Your task to perform on an android device: open sync settings in chrome Image 0: 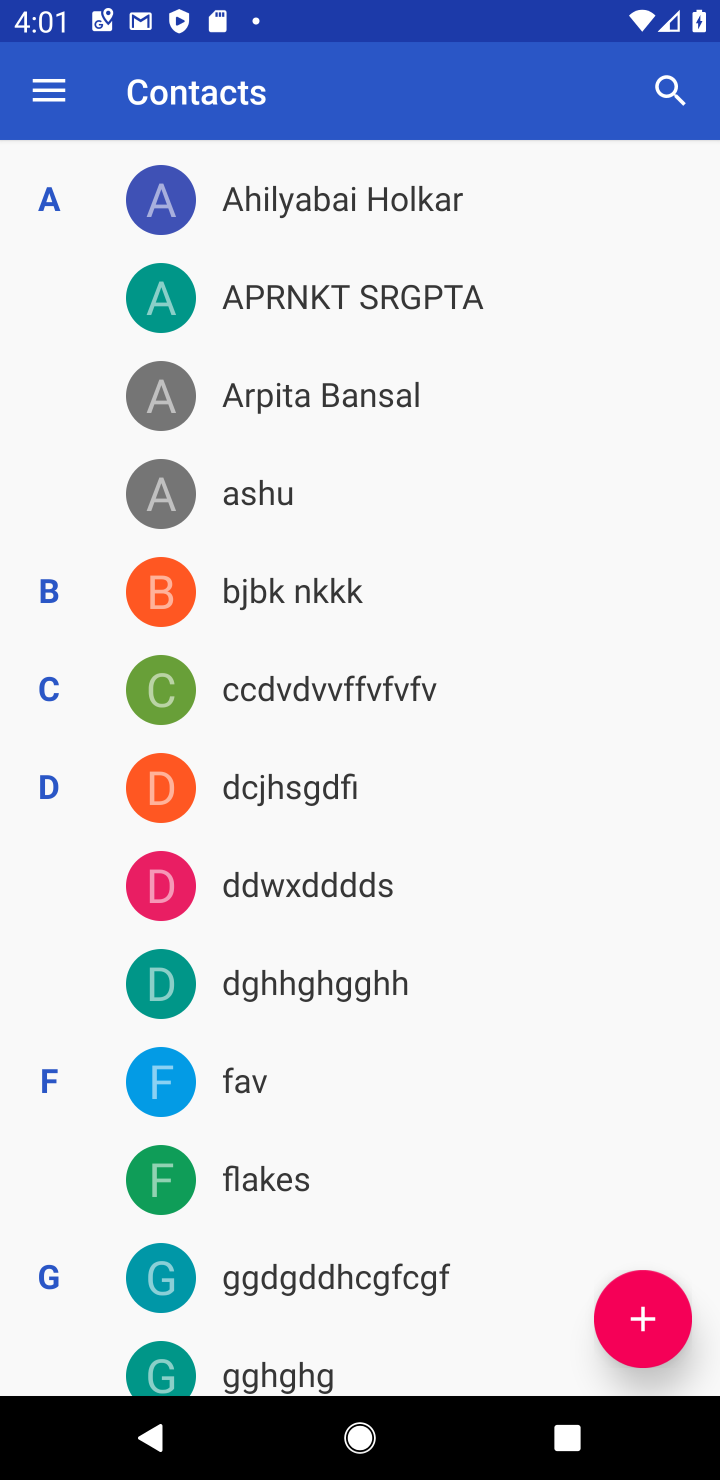
Step 0: press home button
Your task to perform on an android device: open sync settings in chrome Image 1: 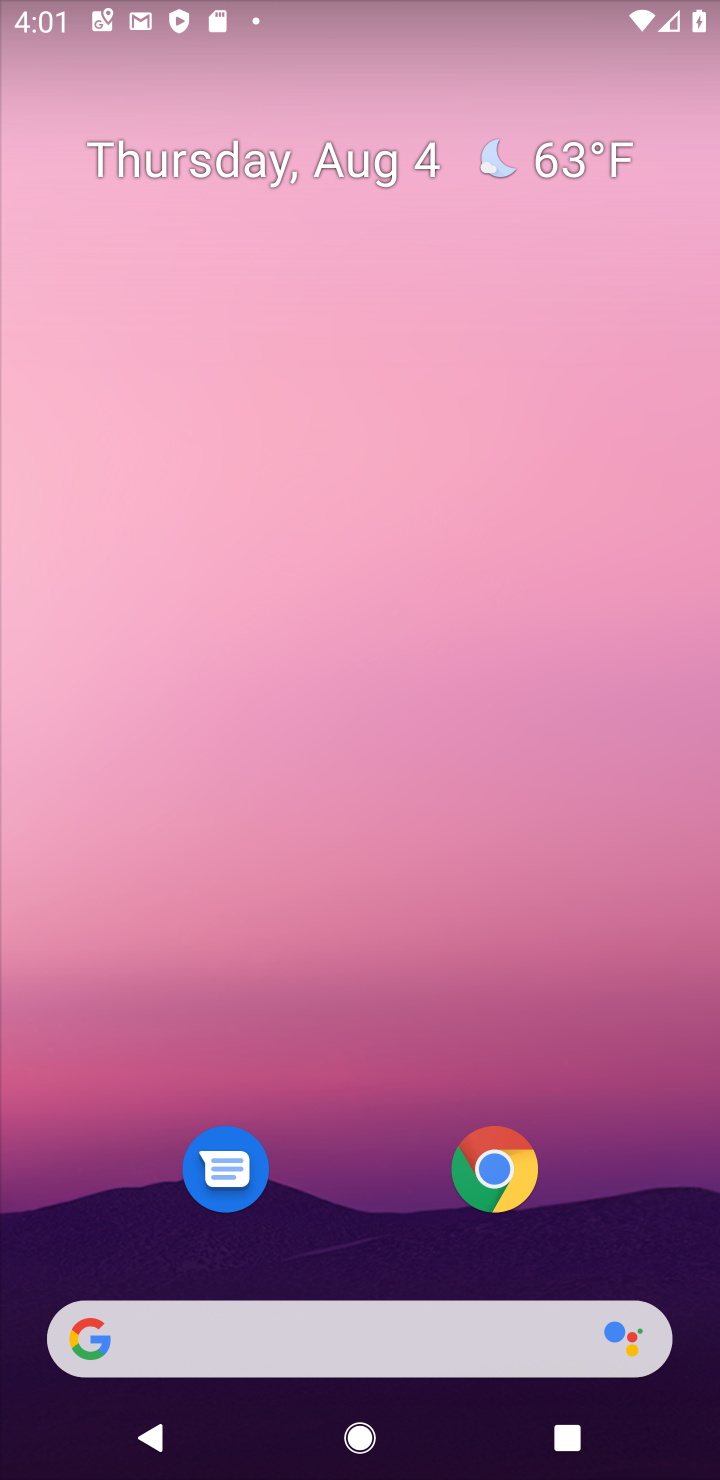
Step 1: drag from (317, 568) to (657, 18)
Your task to perform on an android device: open sync settings in chrome Image 2: 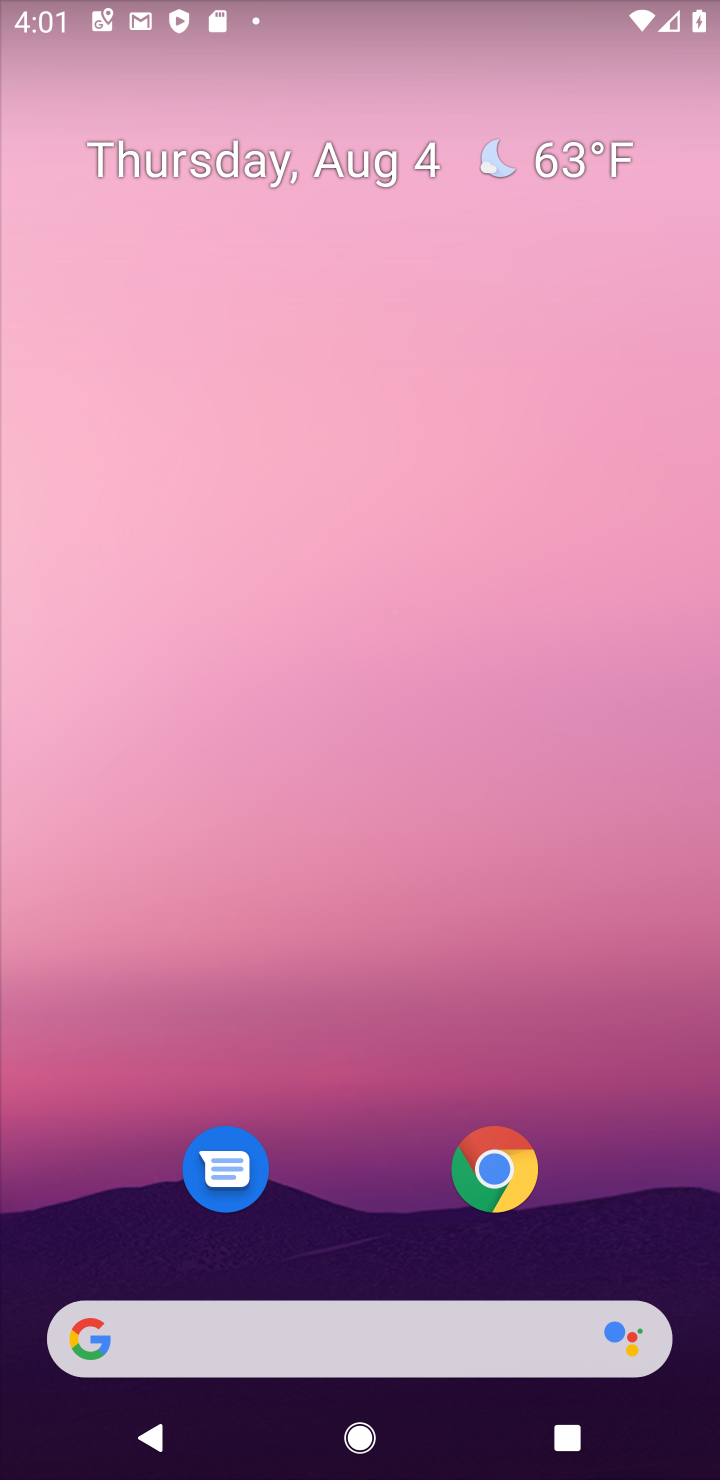
Step 2: drag from (363, 1173) to (462, 11)
Your task to perform on an android device: open sync settings in chrome Image 3: 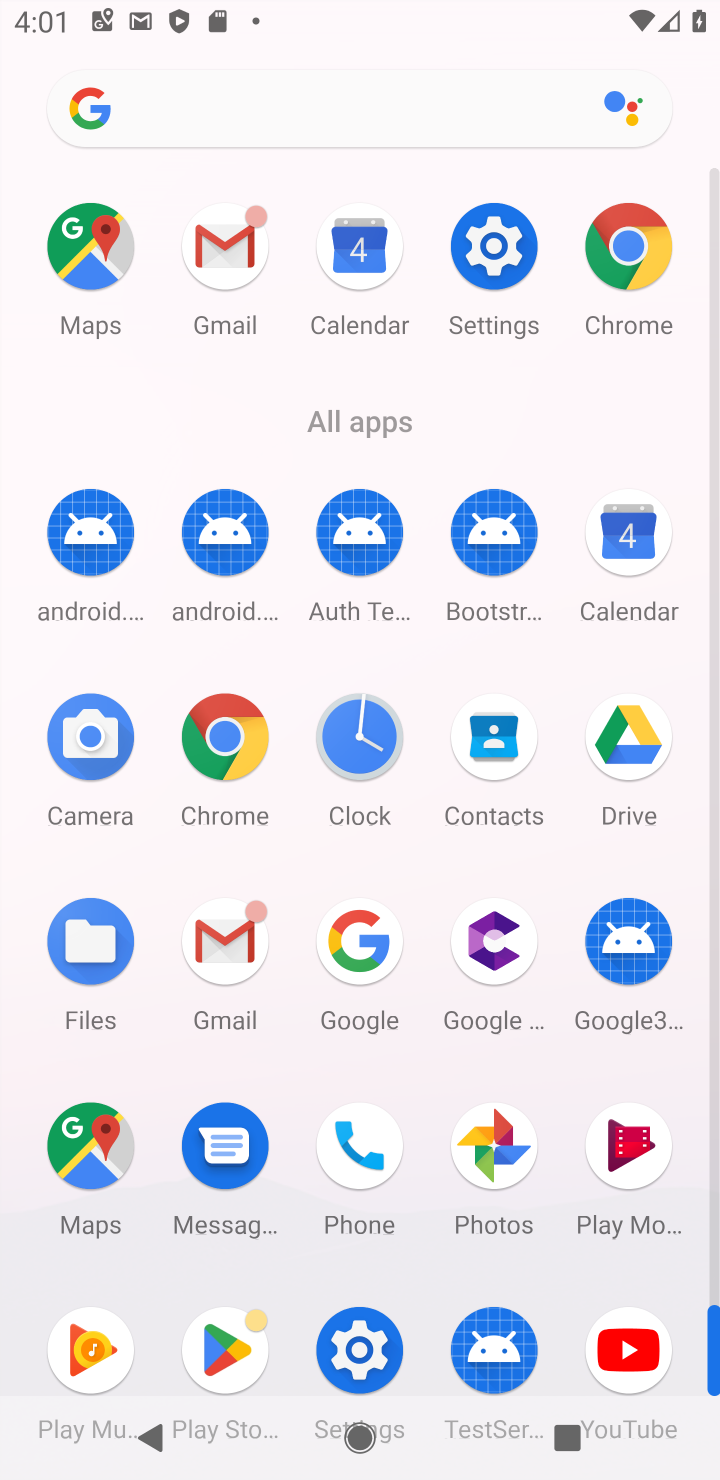
Step 3: click (628, 311)
Your task to perform on an android device: open sync settings in chrome Image 4: 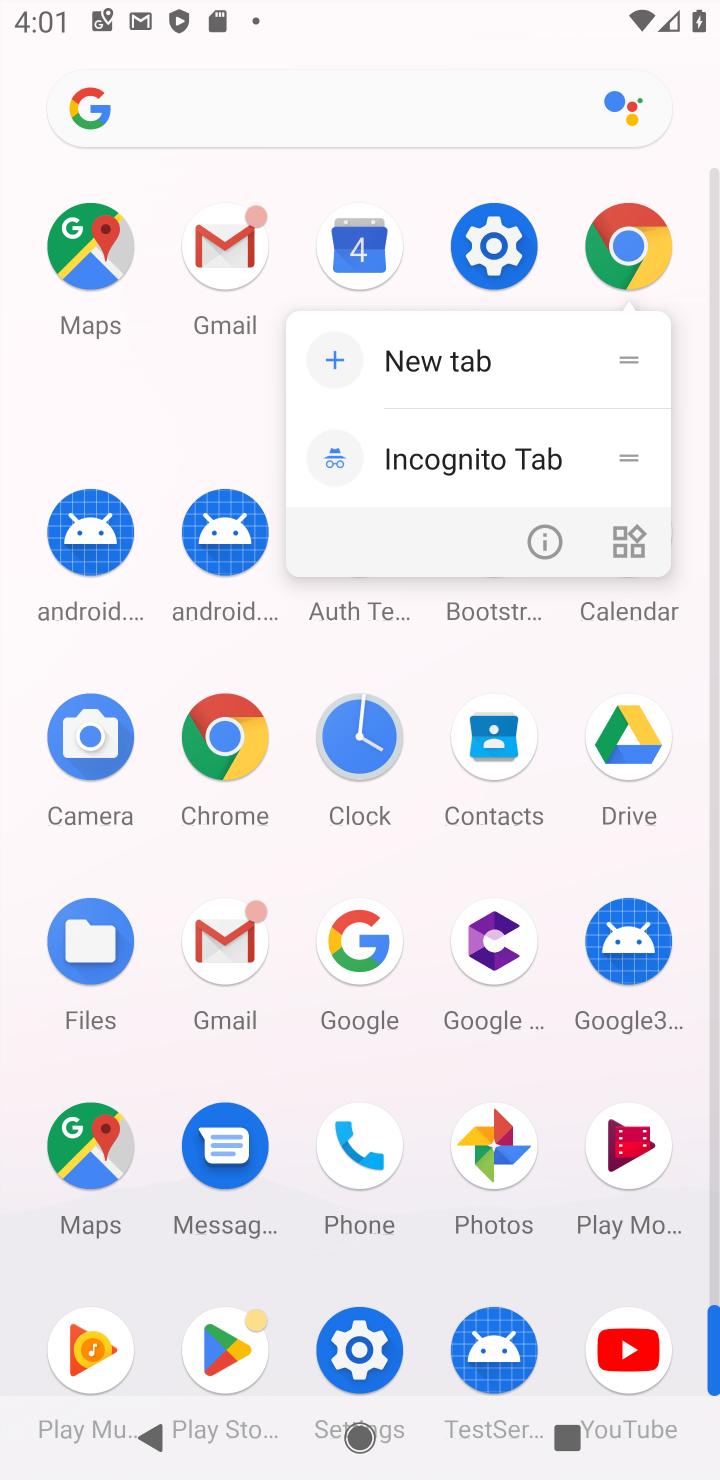
Step 4: click (644, 224)
Your task to perform on an android device: open sync settings in chrome Image 5: 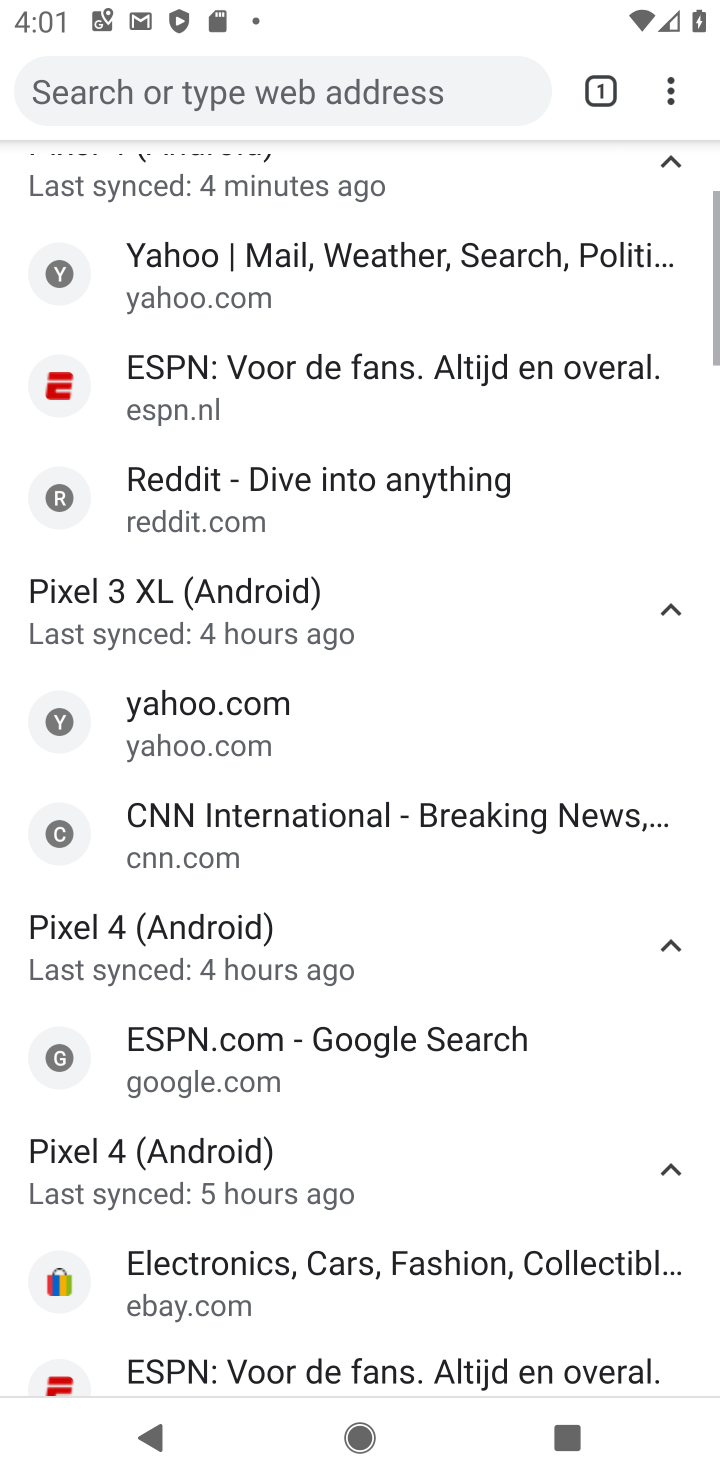
Step 5: click (670, 87)
Your task to perform on an android device: open sync settings in chrome Image 6: 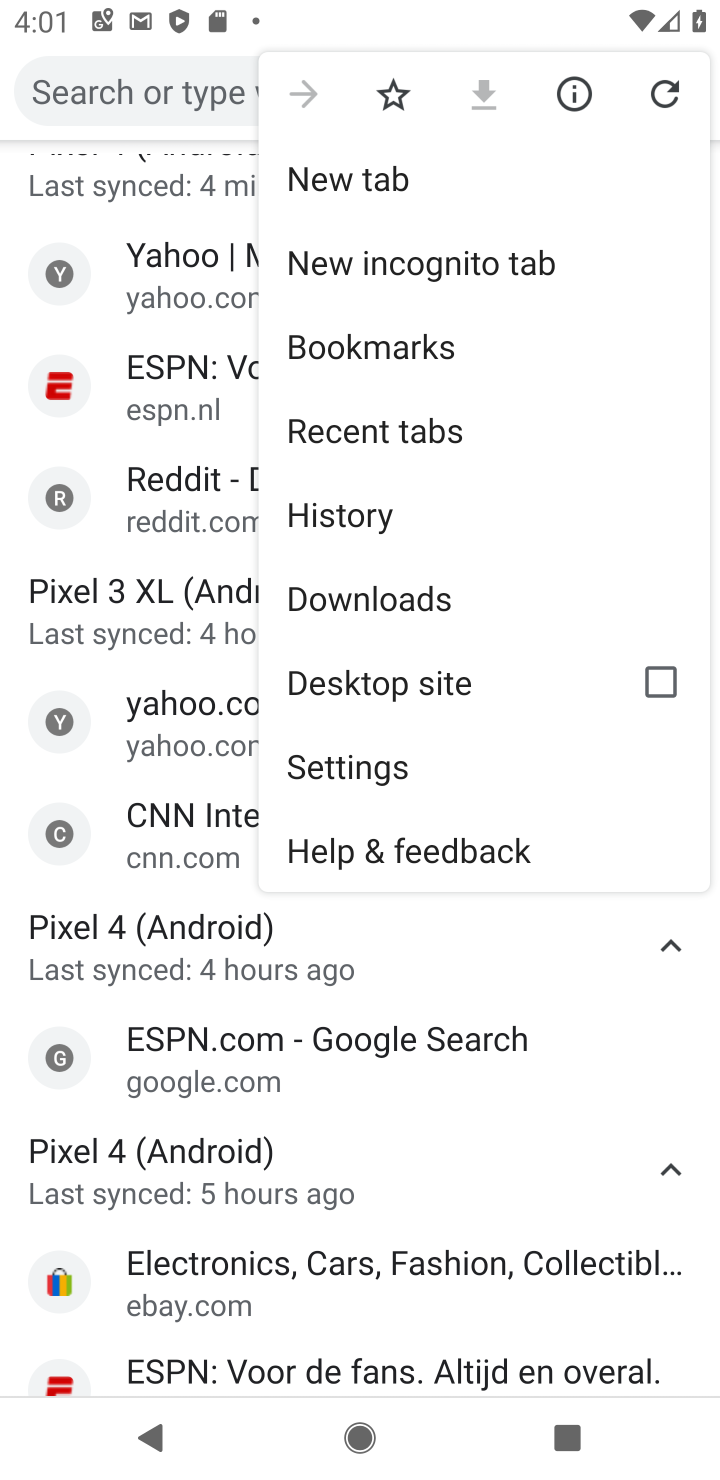
Step 6: click (374, 768)
Your task to perform on an android device: open sync settings in chrome Image 7: 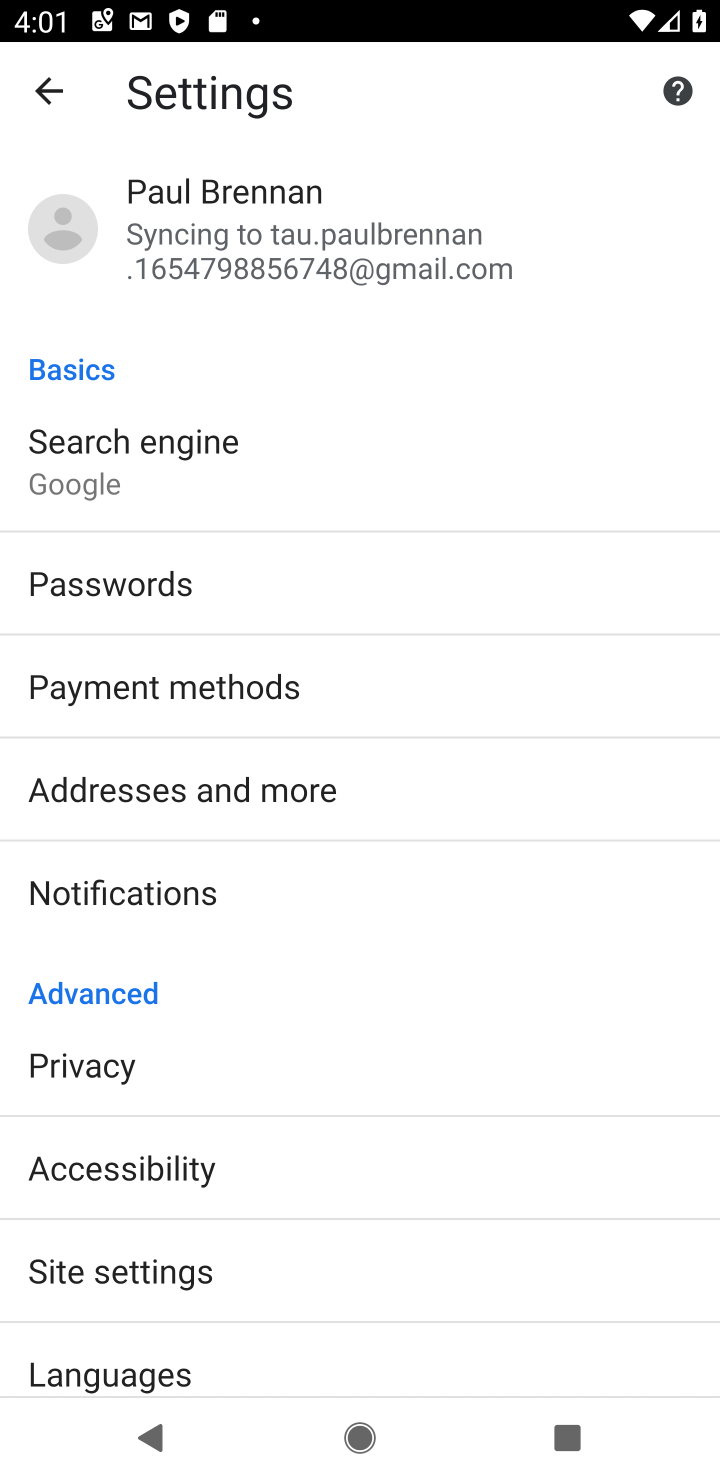
Step 7: click (347, 253)
Your task to perform on an android device: open sync settings in chrome Image 8: 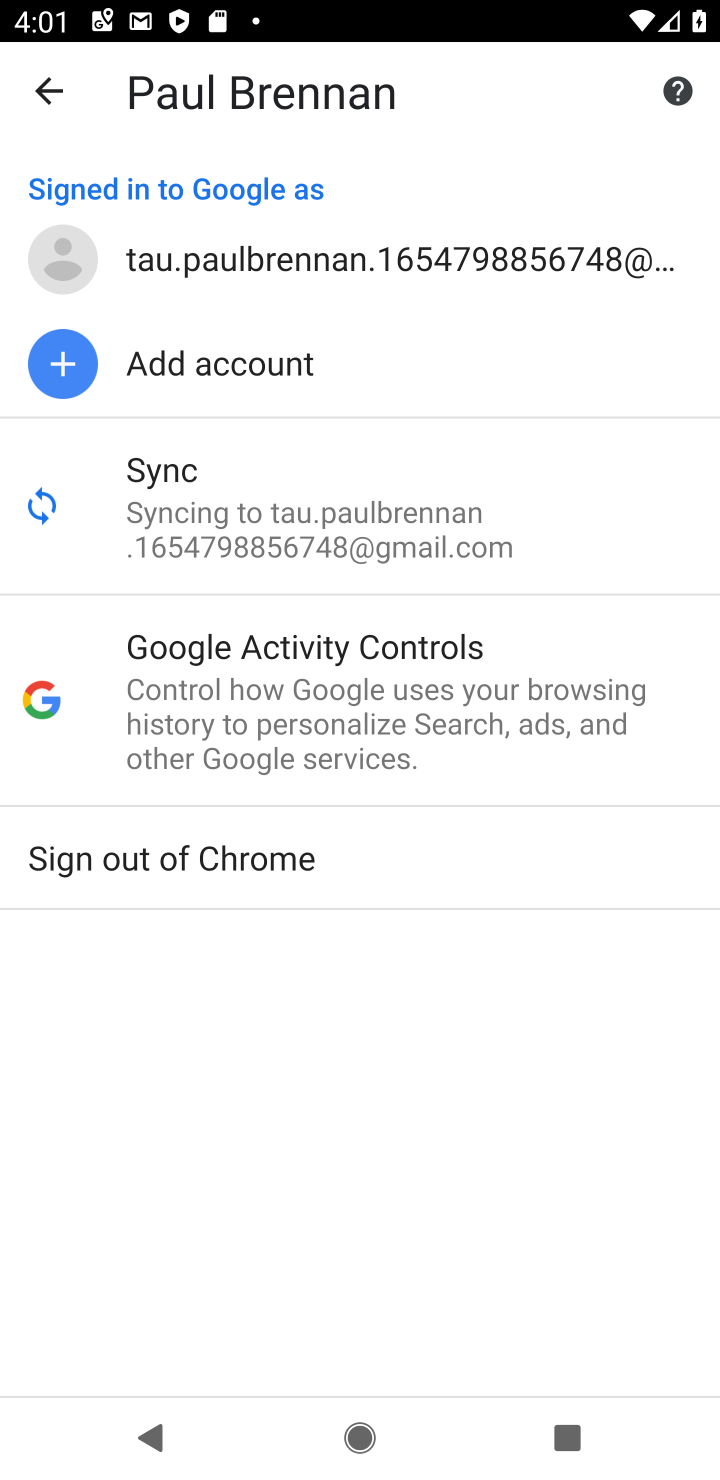
Step 8: click (211, 502)
Your task to perform on an android device: open sync settings in chrome Image 9: 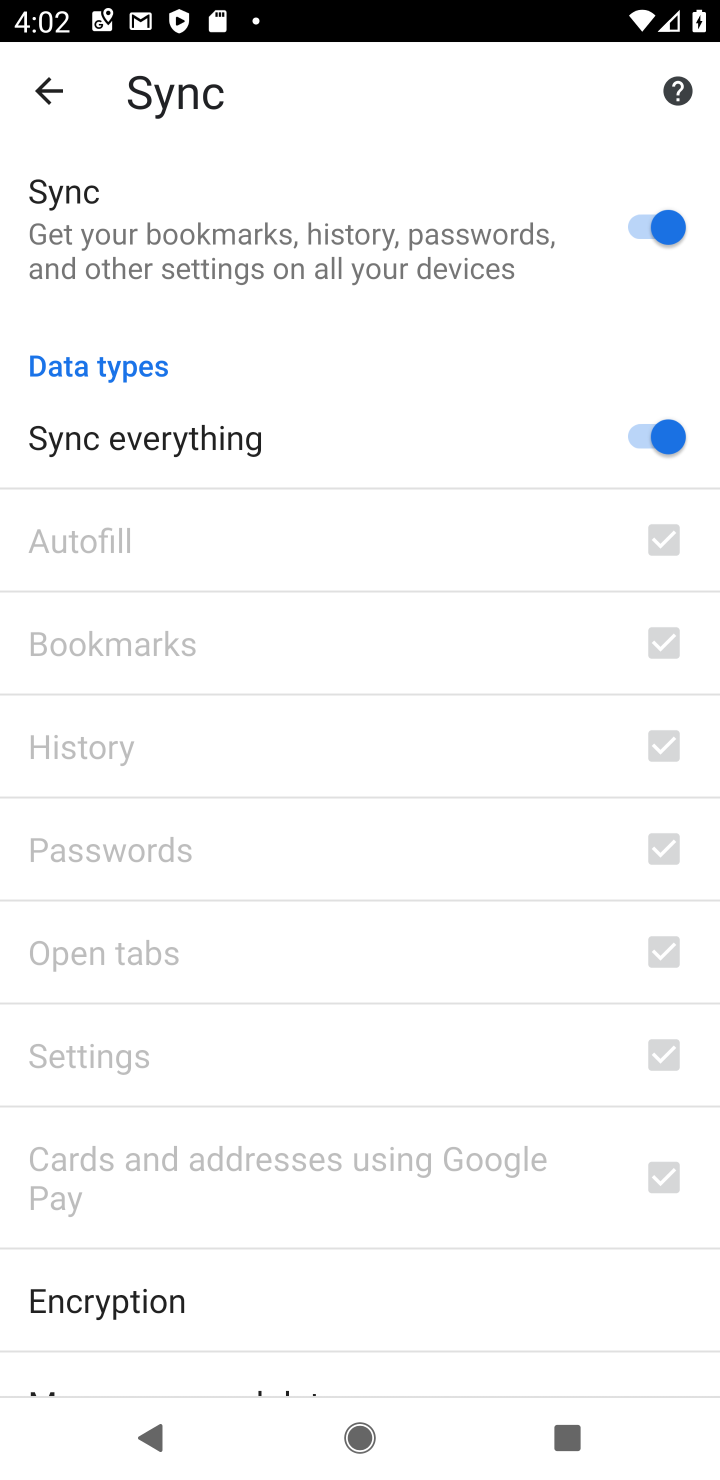
Step 9: task complete